Your task to perform on an android device: check the backup settings in the google photos Image 0: 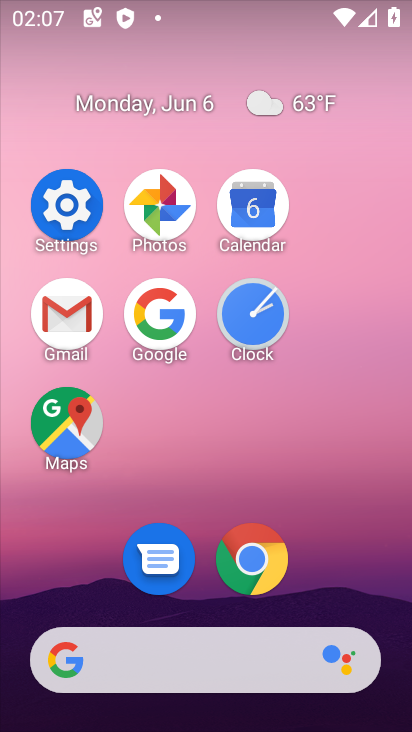
Step 0: click (161, 202)
Your task to perform on an android device: check the backup settings in the google photos Image 1: 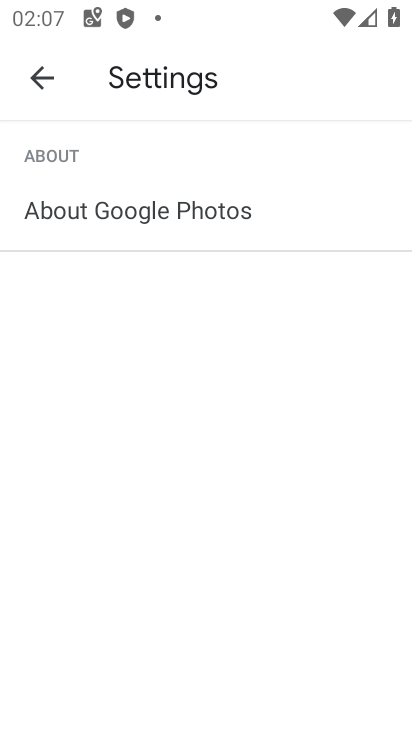
Step 1: click (45, 75)
Your task to perform on an android device: check the backup settings in the google photos Image 2: 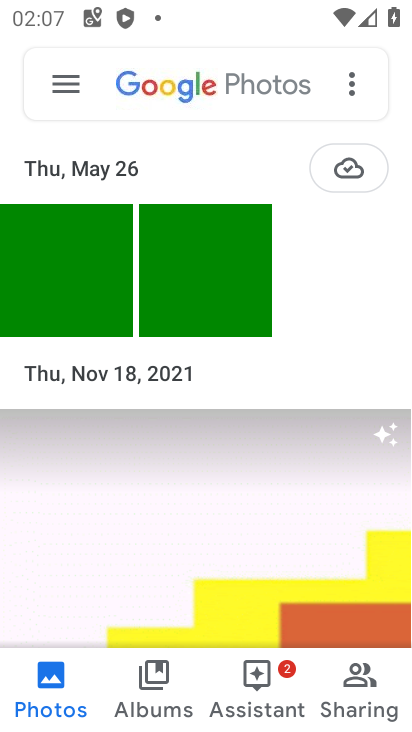
Step 2: click (53, 78)
Your task to perform on an android device: check the backup settings in the google photos Image 3: 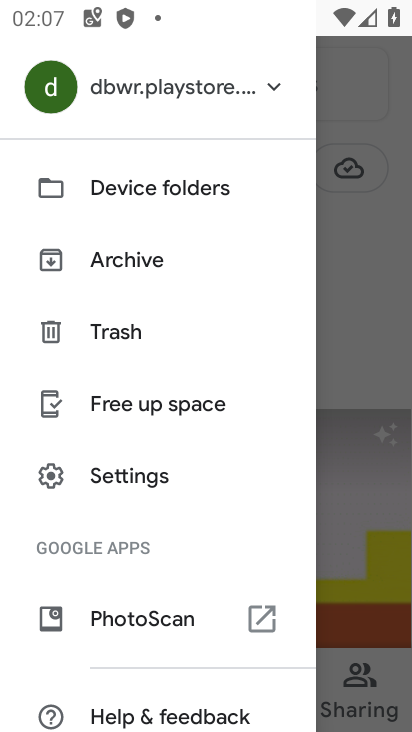
Step 3: drag from (163, 608) to (176, 208)
Your task to perform on an android device: check the backup settings in the google photos Image 4: 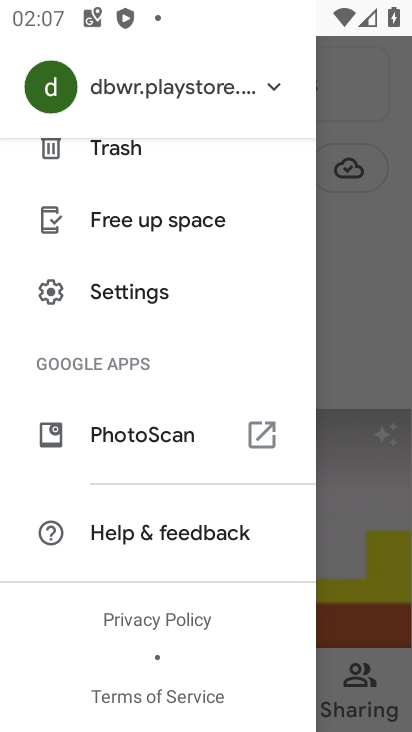
Step 4: click (144, 299)
Your task to perform on an android device: check the backup settings in the google photos Image 5: 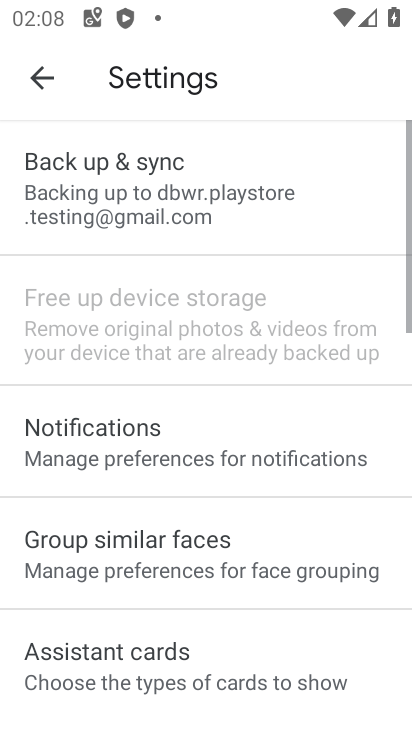
Step 5: click (193, 209)
Your task to perform on an android device: check the backup settings in the google photos Image 6: 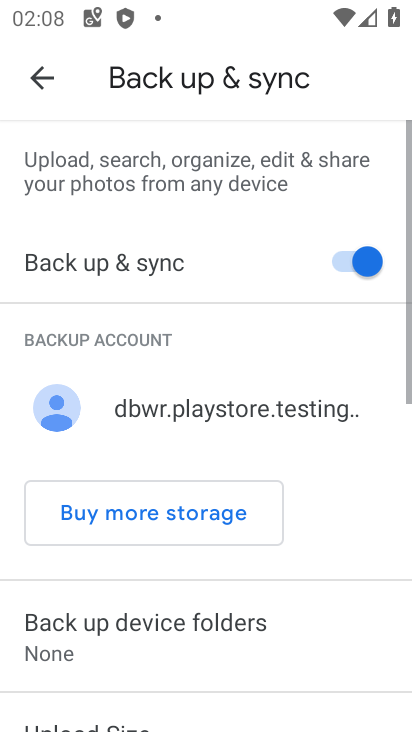
Step 6: task complete